Your task to perform on an android device: turn on location history Image 0: 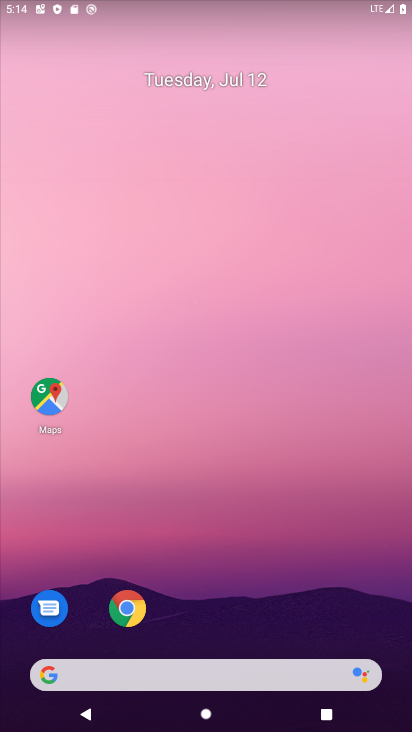
Step 0: drag from (269, 11) to (289, 583)
Your task to perform on an android device: turn on location history Image 1: 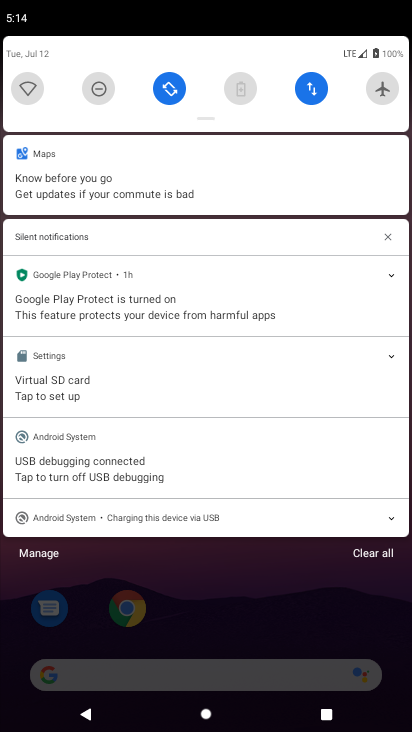
Step 1: drag from (190, 88) to (243, 611)
Your task to perform on an android device: turn on location history Image 2: 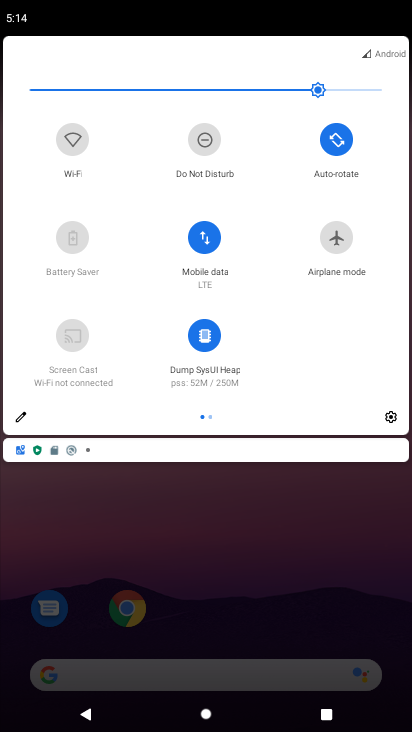
Step 2: click (386, 419)
Your task to perform on an android device: turn on location history Image 3: 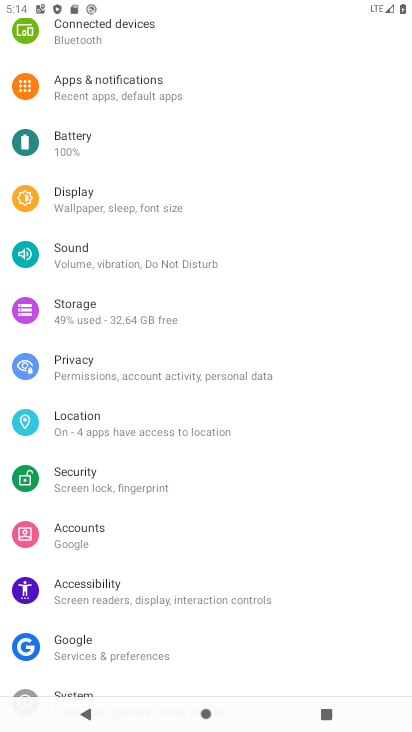
Step 3: click (101, 420)
Your task to perform on an android device: turn on location history Image 4: 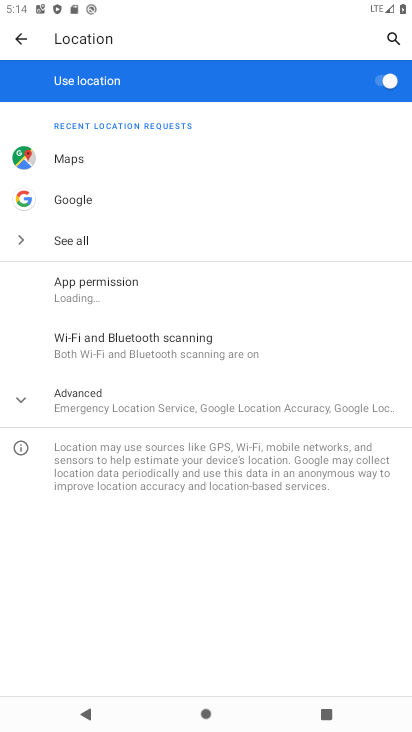
Step 4: click (141, 416)
Your task to perform on an android device: turn on location history Image 5: 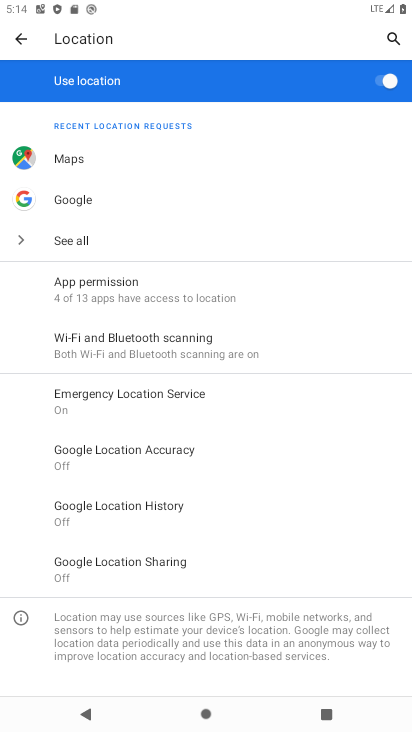
Step 5: click (170, 499)
Your task to perform on an android device: turn on location history Image 6: 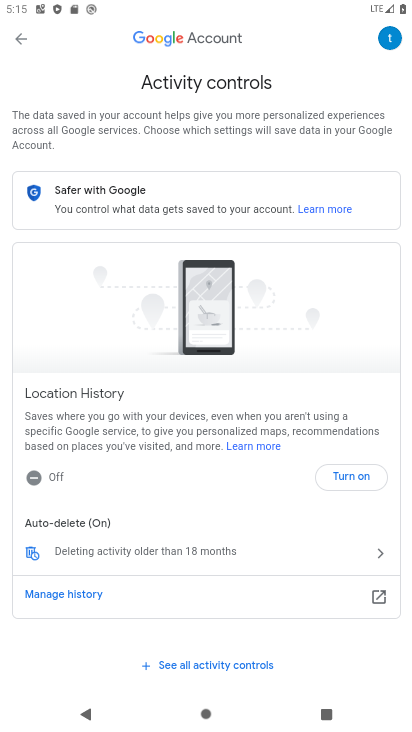
Step 6: click (341, 483)
Your task to perform on an android device: turn on location history Image 7: 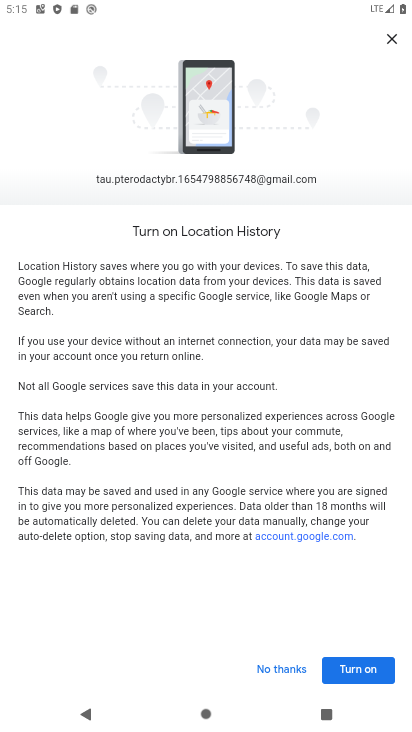
Step 7: click (360, 661)
Your task to perform on an android device: turn on location history Image 8: 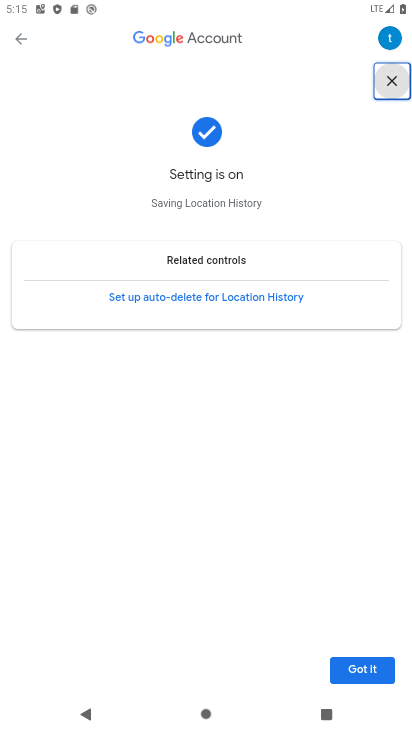
Step 8: click (361, 661)
Your task to perform on an android device: turn on location history Image 9: 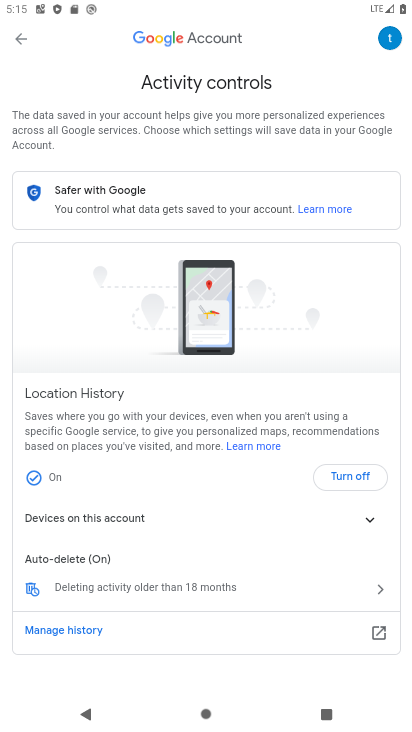
Step 9: task complete